Your task to perform on an android device: read, delete, or share a saved page in the chrome app Image 0: 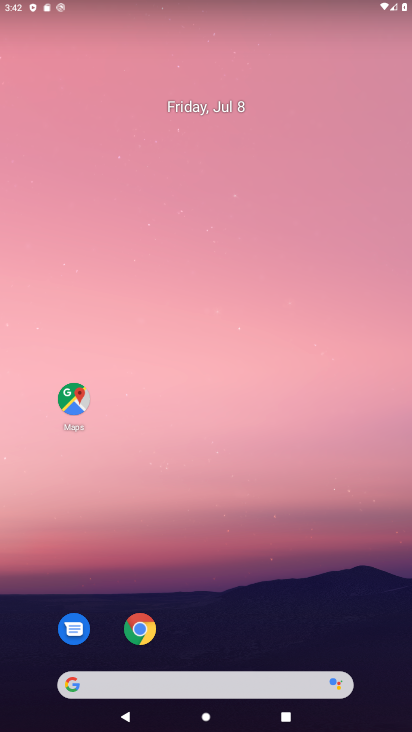
Step 0: drag from (205, 646) to (113, 41)
Your task to perform on an android device: read, delete, or share a saved page in the chrome app Image 1: 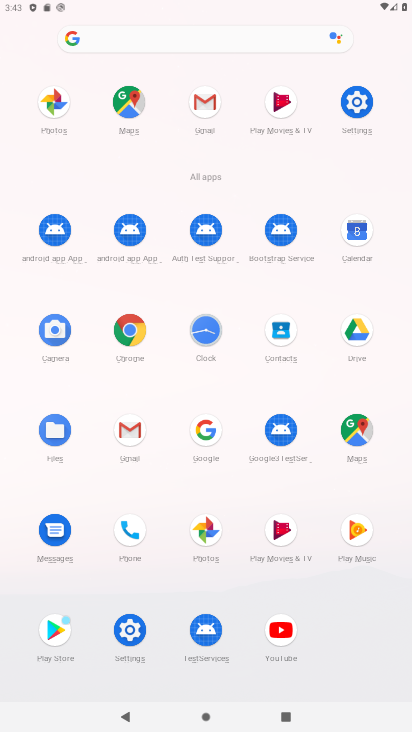
Step 1: click (143, 338)
Your task to perform on an android device: read, delete, or share a saved page in the chrome app Image 2: 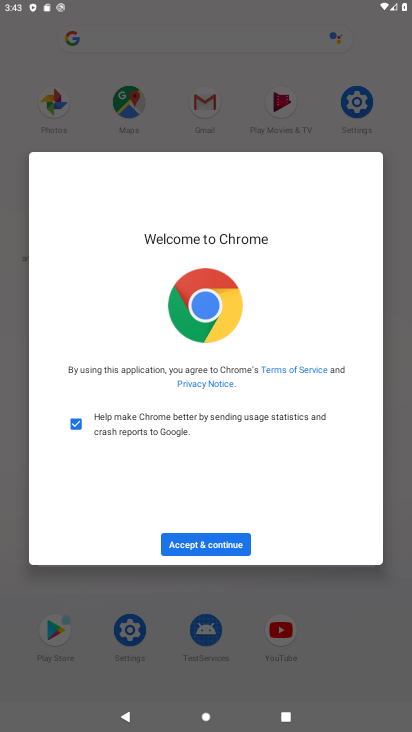
Step 2: click (223, 545)
Your task to perform on an android device: read, delete, or share a saved page in the chrome app Image 3: 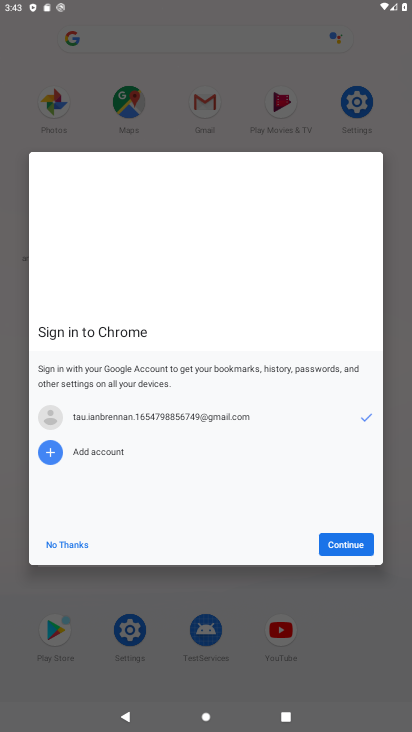
Step 3: click (362, 544)
Your task to perform on an android device: read, delete, or share a saved page in the chrome app Image 4: 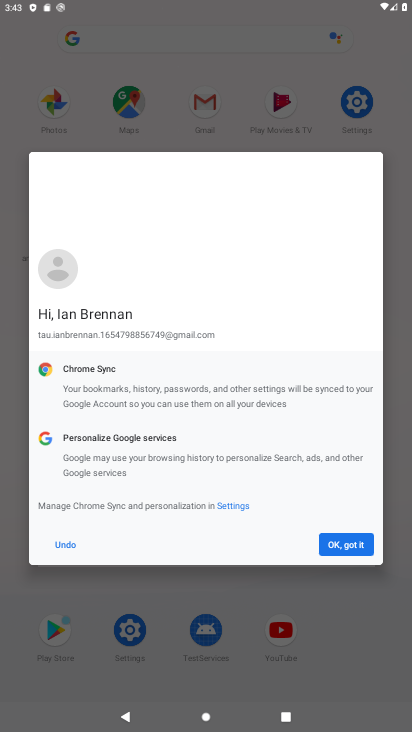
Step 4: click (360, 551)
Your task to perform on an android device: read, delete, or share a saved page in the chrome app Image 5: 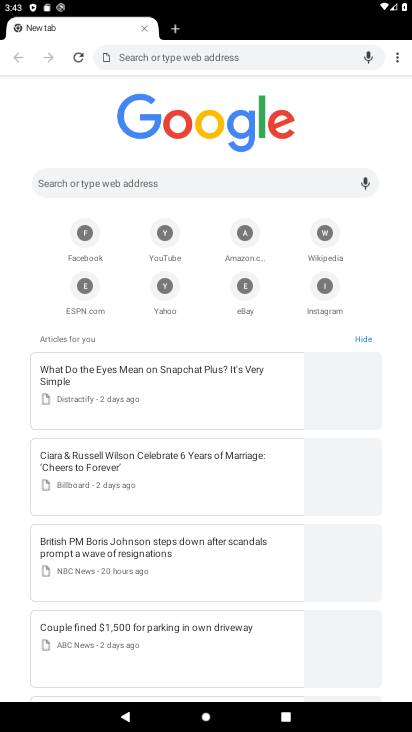
Step 5: task complete